Your task to perform on an android device: turn on notifications settings in the gmail app Image 0: 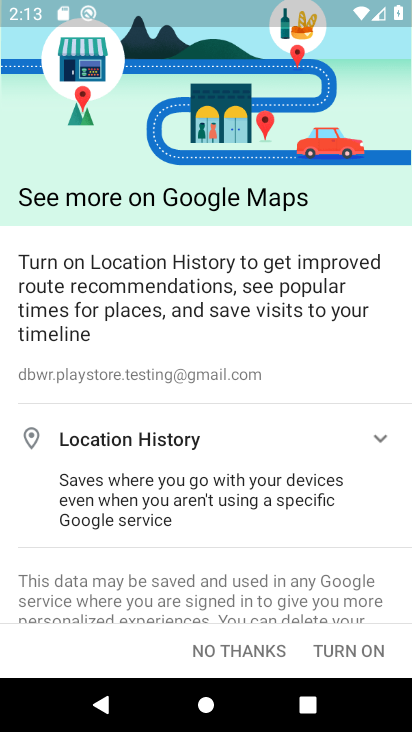
Step 0: click (352, 655)
Your task to perform on an android device: turn on notifications settings in the gmail app Image 1: 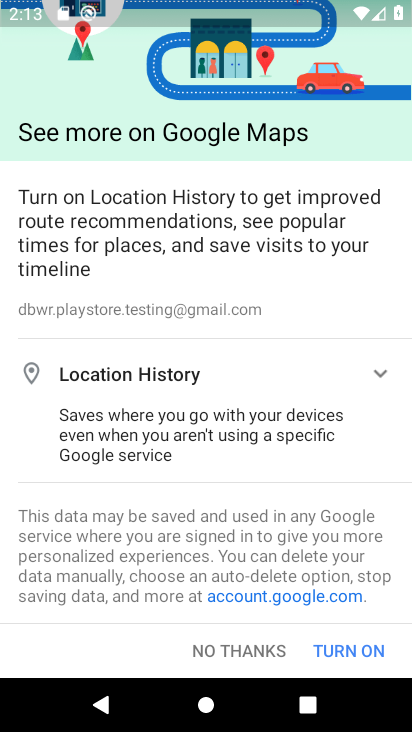
Step 1: click (356, 655)
Your task to perform on an android device: turn on notifications settings in the gmail app Image 2: 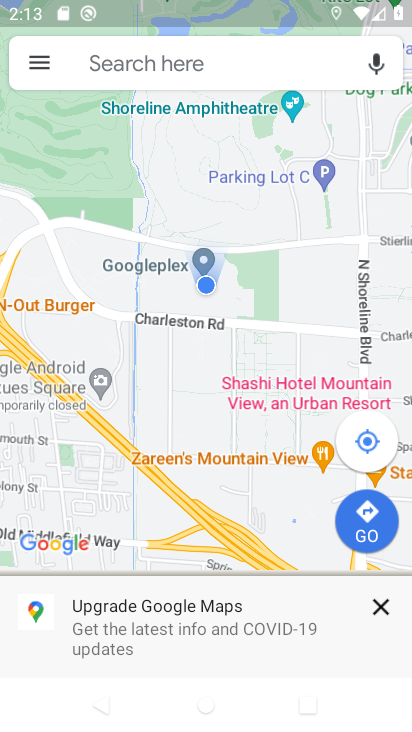
Step 2: click (376, 609)
Your task to perform on an android device: turn on notifications settings in the gmail app Image 3: 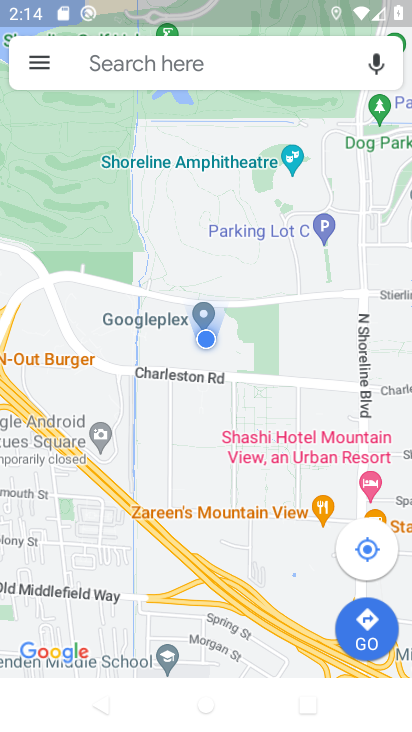
Step 3: press home button
Your task to perform on an android device: turn on notifications settings in the gmail app Image 4: 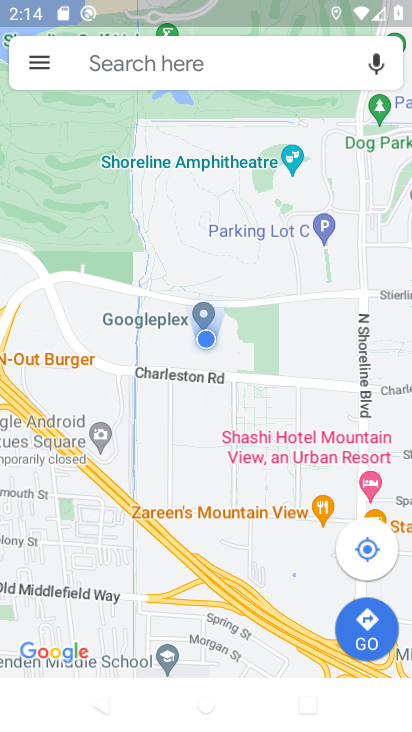
Step 4: press home button
Your task to perform on an android device: turn on notifications settings in the gmail app Image 5: 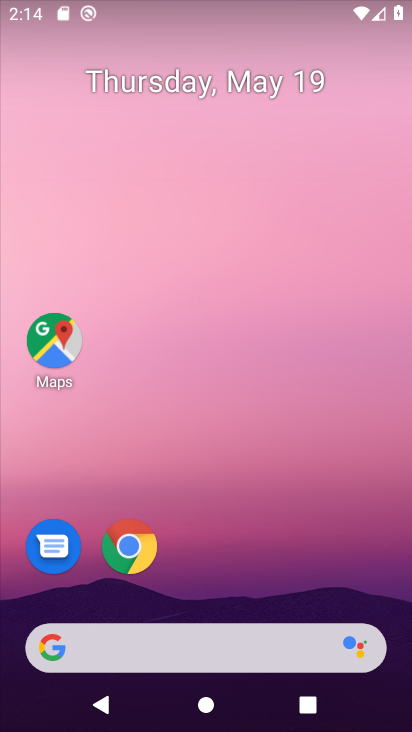
Step 5: drag from (230, 600) to (228, 42)
Your task to perform on an android device: turn on notifications settings in the gmail app Image 6: 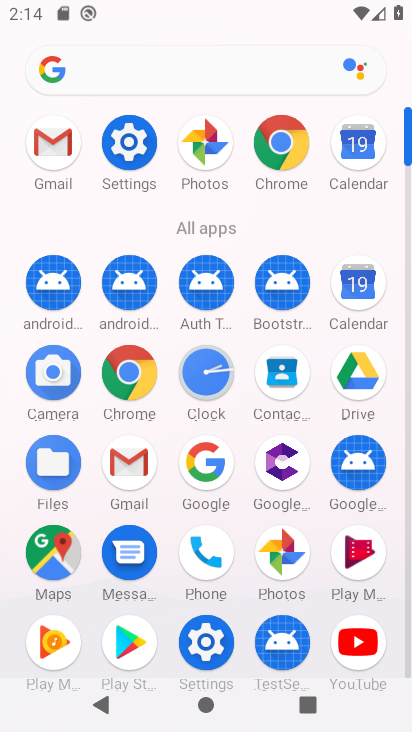
Step 6: click (128, 456)
Your task to perform on an android device: turn on notifications settings in the gmail app Image 7: 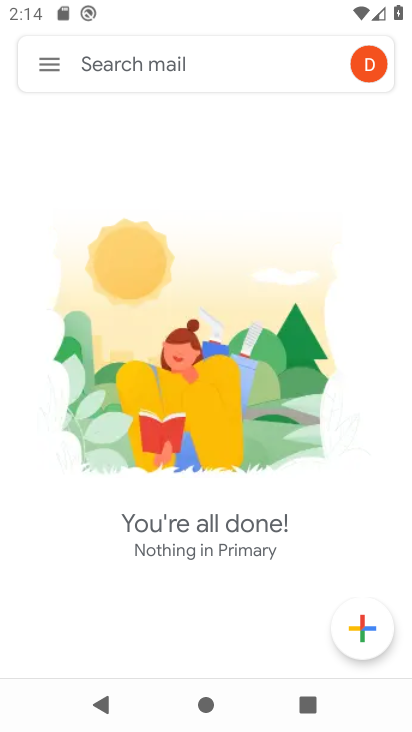
Step 7: click (47, 59)
Your task to perform on an android device: turn on notifications settings in the gmail app Image 8: 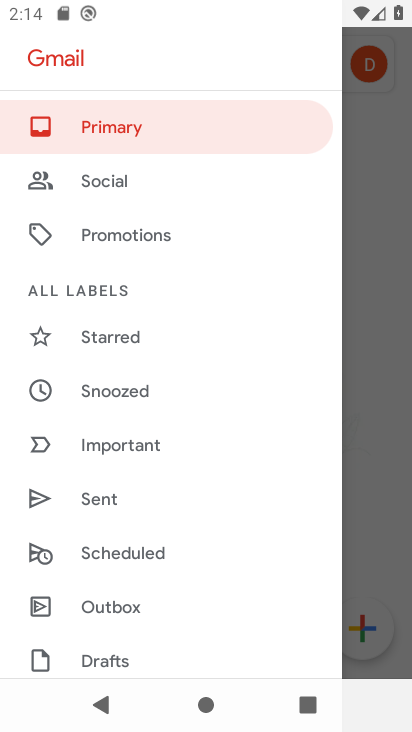
Step 8: drag from (159, 640) to (202, 166)
Your task to perform on an android device: turn on notifications settings in the gmail app Image 9: 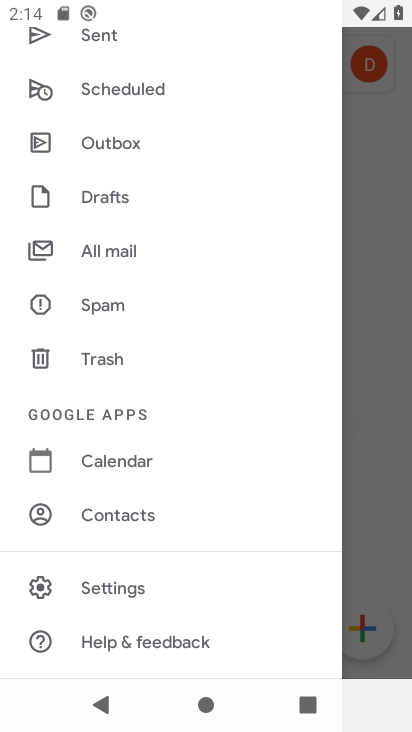
Step 9: click (151, 582)
Your task to perform on an android device: turn on notifications settings in the gmail app Image 10: 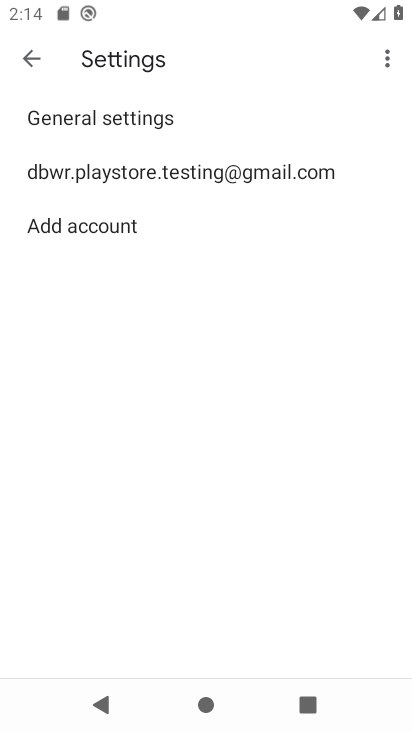
Step 10: click (188, 108)
Your task to perform on an android device: turn on notifications settings in the gmail app Image 11: 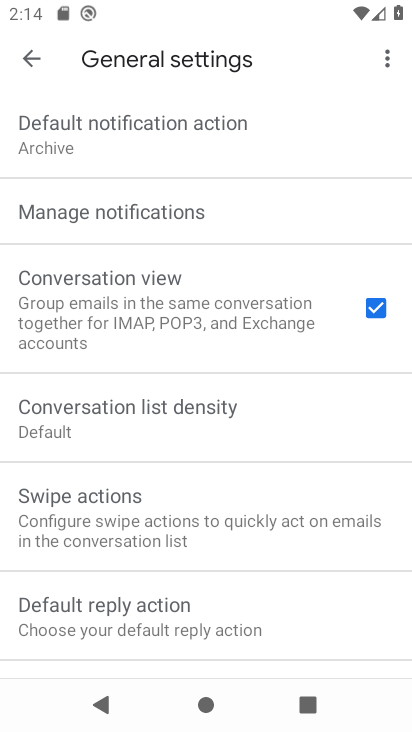
Step 11: click (213, 204)
Your task to perform on an android device: turn on notifications settings in the gmail app Image 12: 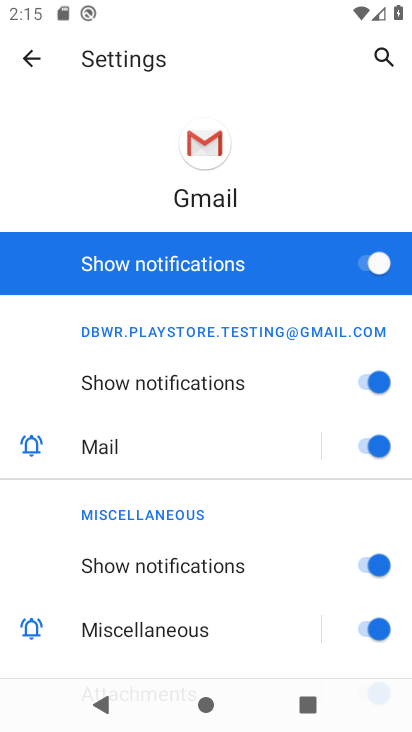
Step 12: task complete